Your task to perform on an android device: Open the phone app and click the voicemail tab. Image 0: 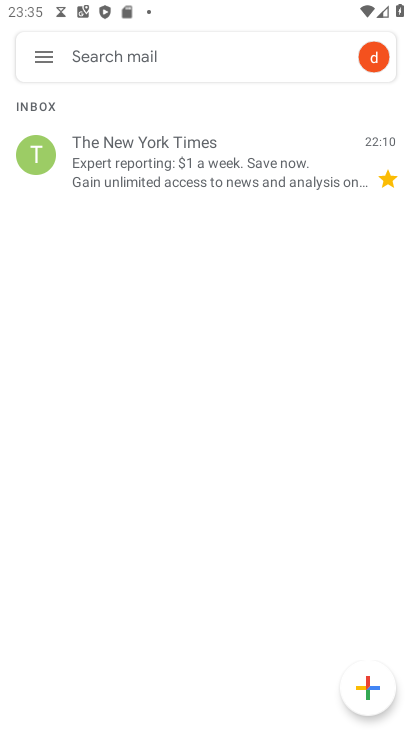
Step 0: press back button
Your task to perform on an android device: Open the phone app and click the voicemail tab. Image 1: 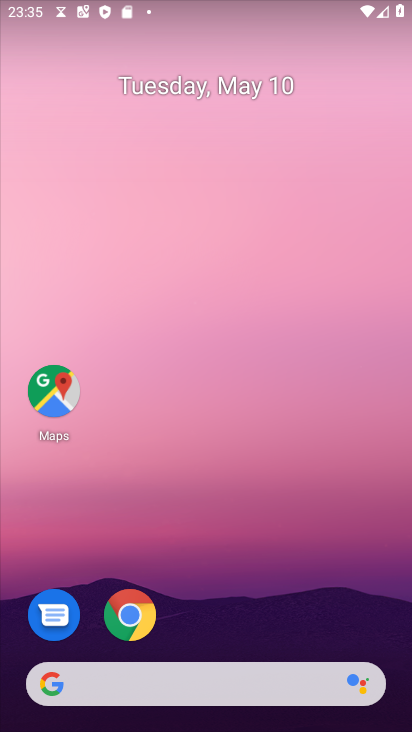
Step 1: drag from (253, 555) to (229, 17)
Your task to perform on an android device: Open the phone app and click the voicemail tab. Image 2: 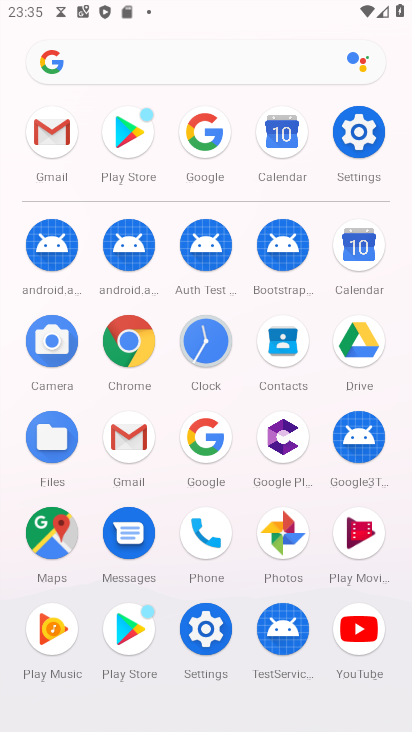
Step 2: click (204, 537)
Your task to perform on an android device: Open the phone app and click the voicemail tab. Image 3: 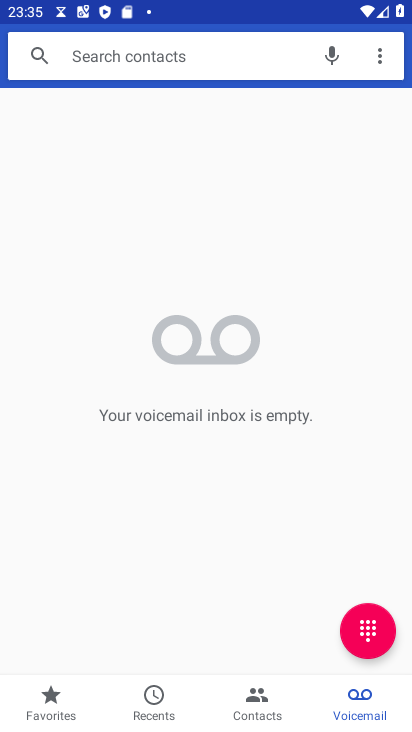
Step 3: click (357, 720)
Your task to perform on an android device: Open the phone app and click the voicemail tab. Image 4: 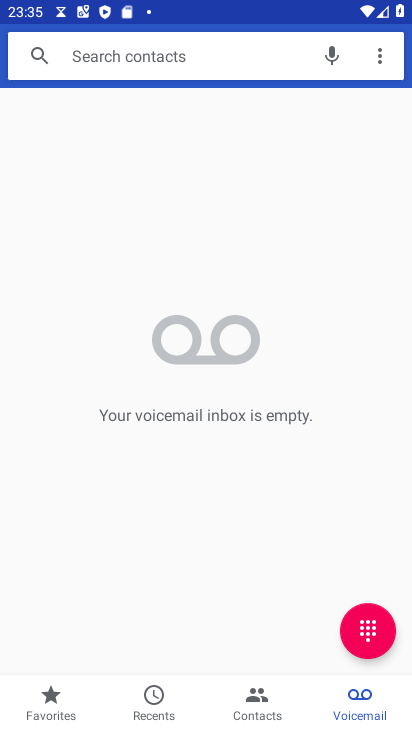
Step 4: task complete